Your task to perform on an android device: add a contact in the contacts app Image 0: 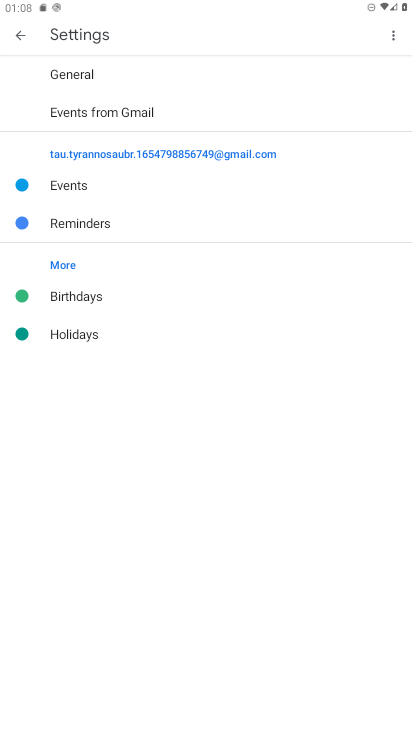
Step 0: press home button
Your task to perform on an android device: add a contact in the contacts app Image 1: 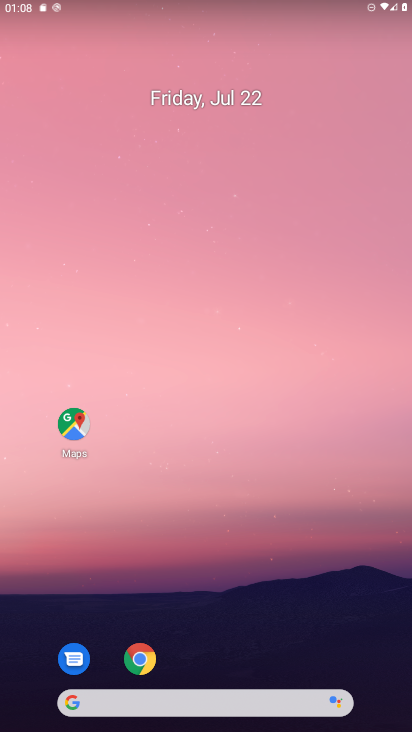
Step 1: drag from (181, 704) to (174, 117)
Your task to perform on an android device: add a contact in the contacts app Image 2: 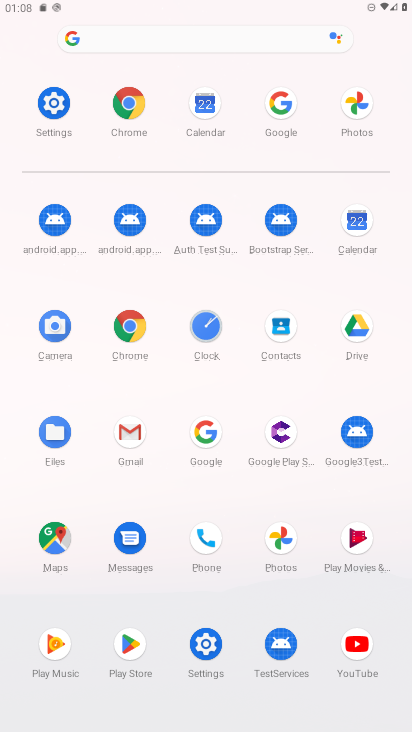
Step 2: click (282, 327)
Your task to perform on an android device: add a contact in the contacts app Image 3: 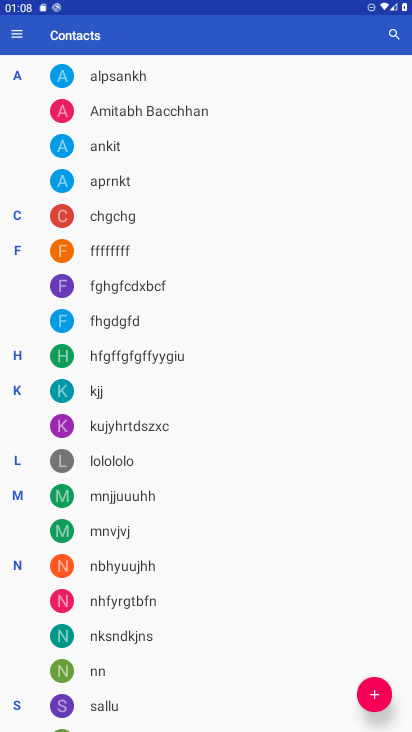
Step 3: click (377, 695)
Your task to perform on an android device: add a contact in the contacts app Image 4: 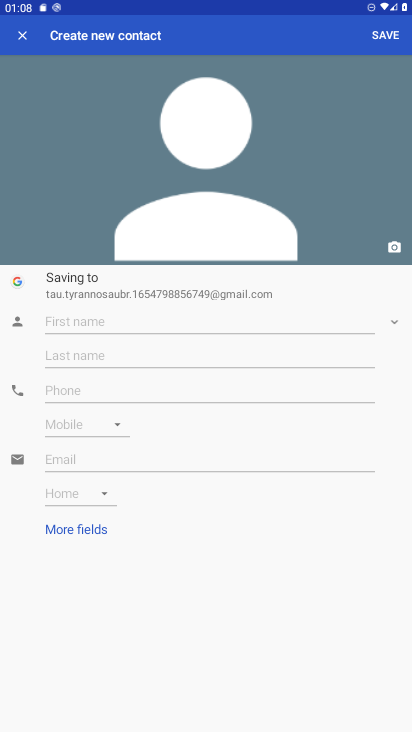
Step 4: click (225, 318)
Your task to perform on an android device: add a contact in the contacts app Image 5: 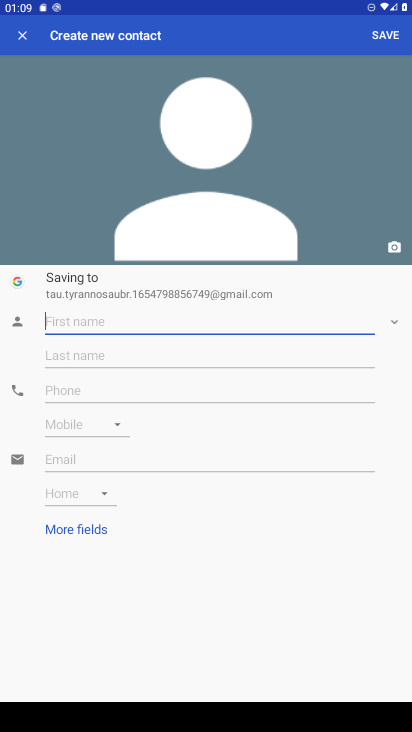
Step 5: type "Damodar"
Your task to perform on an android device: add a contact in the contacts app Image 6: 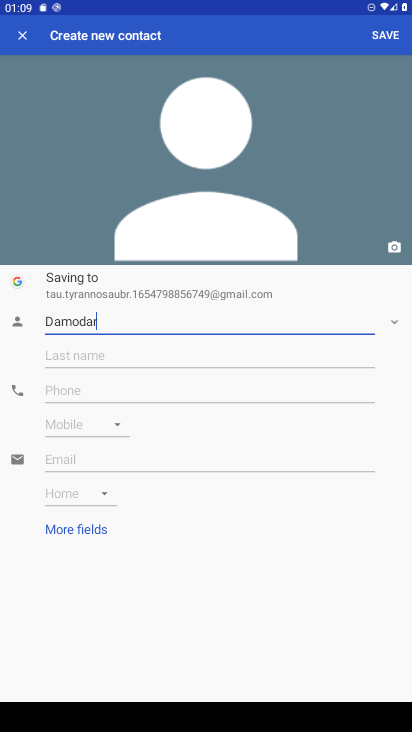
Step 6: click (214, 350)
Your task to perform on an android device: add a contact in the contacts app Image 7: 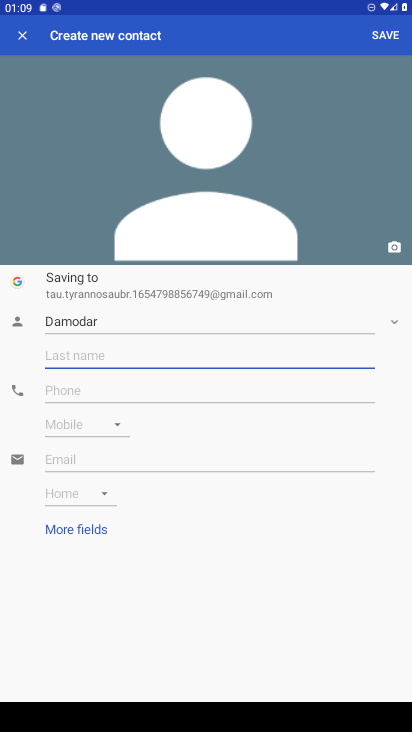
Step 7: type "Das"
Your task to perform on an android device: add a contact in the contacts app Image 8: 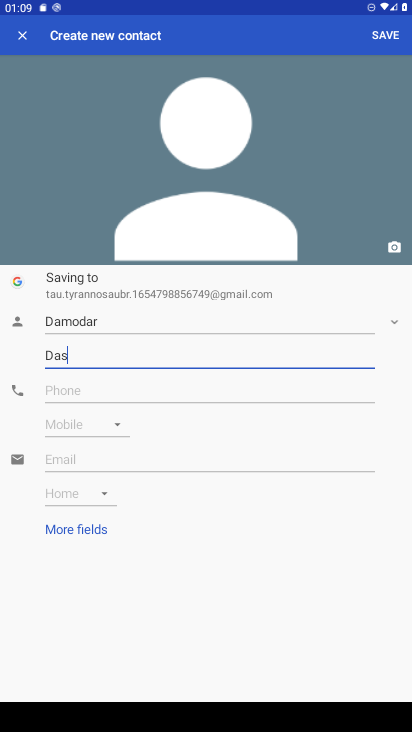
Step 8: click (200, 387)
Your task to perform on an android device: add a contact in the contacts app Image 9: 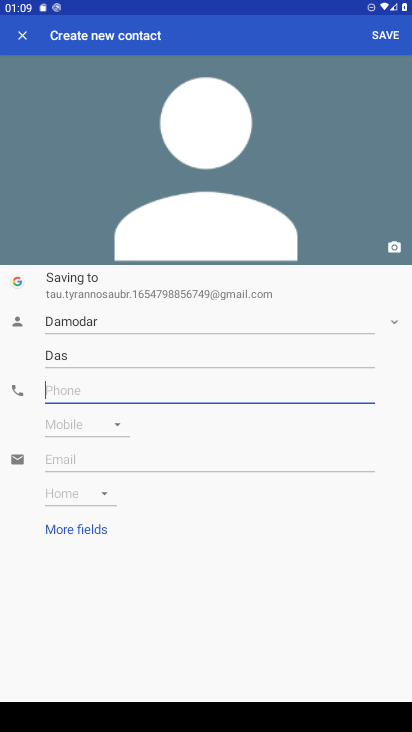
Step 9: type "0987654321"
Your task to perform on an android device: add a contact in the contacts app Image 10: 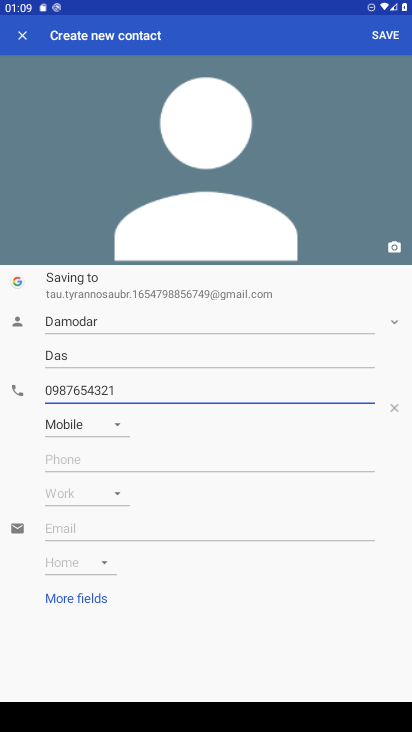
Step 10: click (386, 35)
Your task to perform on an android device: add a contact in the contacts app Image 11: 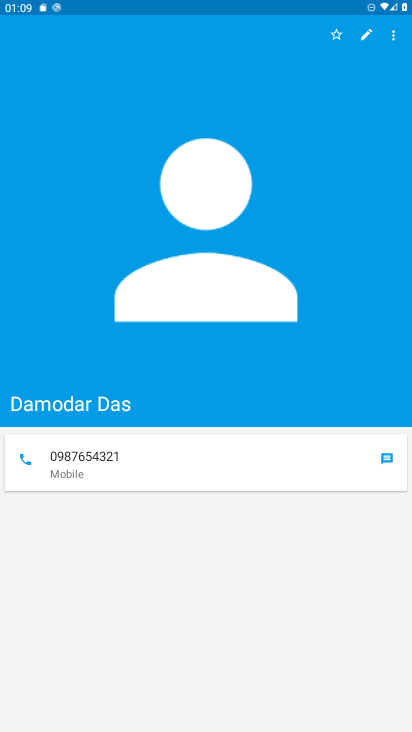
Step 11: task complete